Your task to perform on an android device: Go to battery settings Image 0: 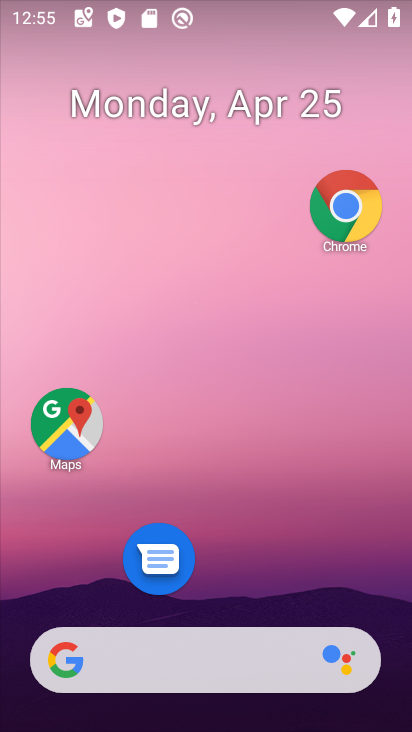
Step 0: drag from (240, 557) to (265, 172)
Your task to perform on an android device: Go to battery settings Image 1: 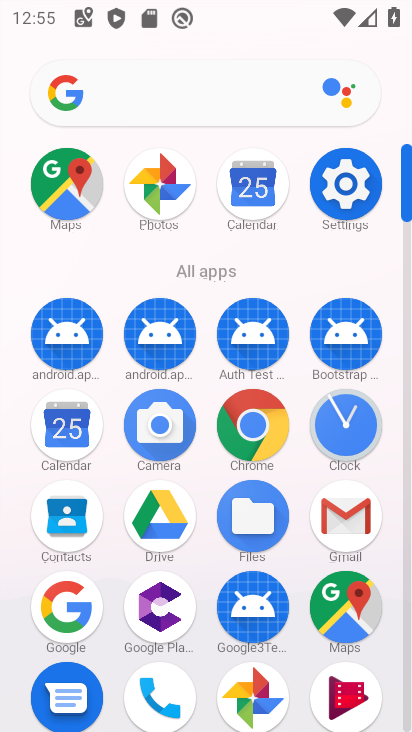
Step 1: click (354, 177)
Your task to perform on an android device: Go to battery settings Image 2: 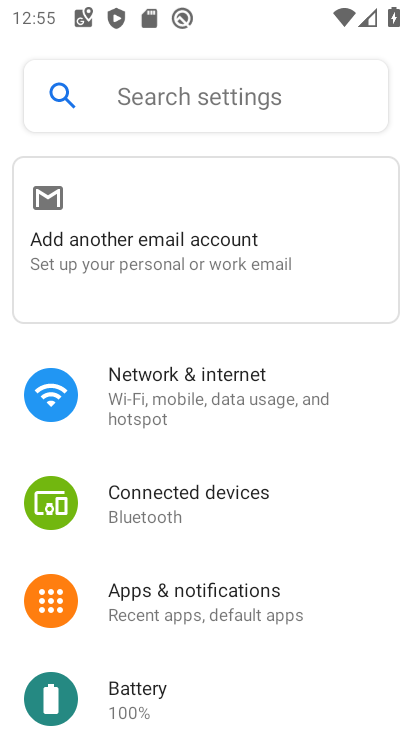
Step 2: click (154, 702)
Your task to perform on an android device: Go to battery settings Image 3: 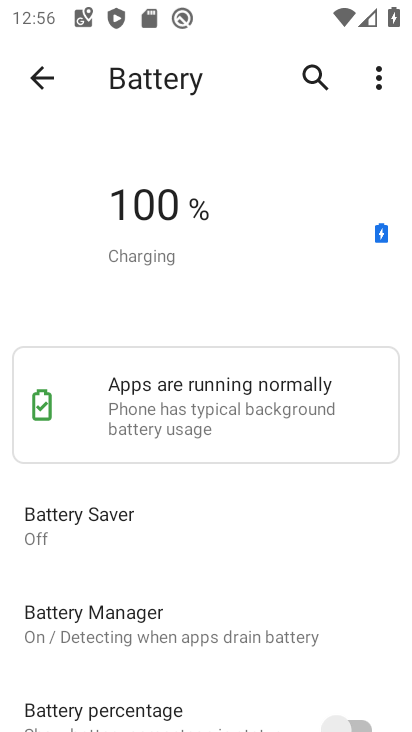
Step 3: task complete